Your task to perform on an android device: Go to calendar. Show me events next week Image 0: 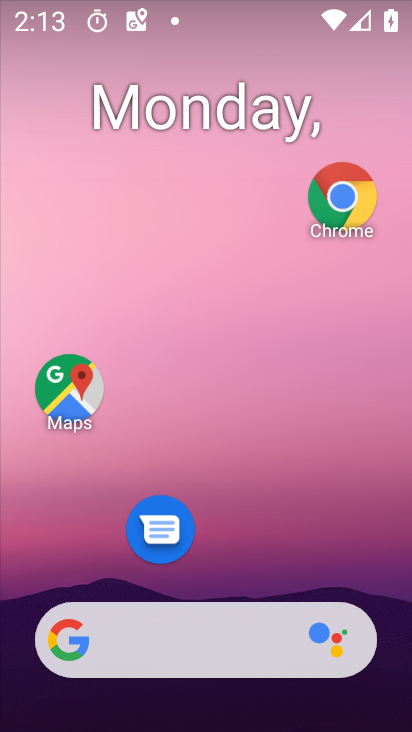
Step 0: drag from (215, 579) to (233, 13)
Your task to perform on an android device: Go to calendar. Show me events next week Image 1: 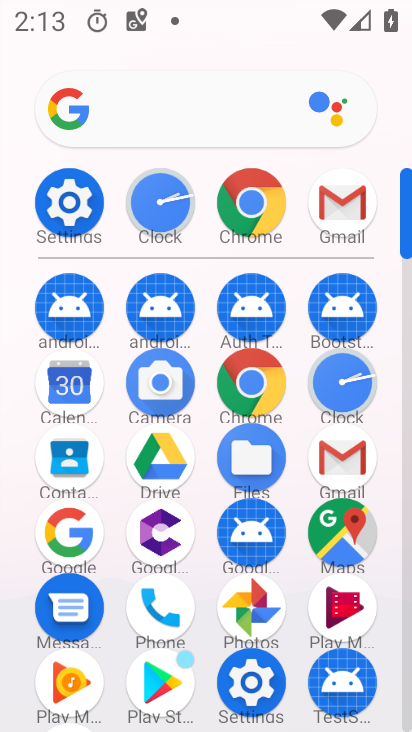
Step 1: click (77, 393)
Your task to perform on an android device: Go to calendar. Show me events next week Image 2: 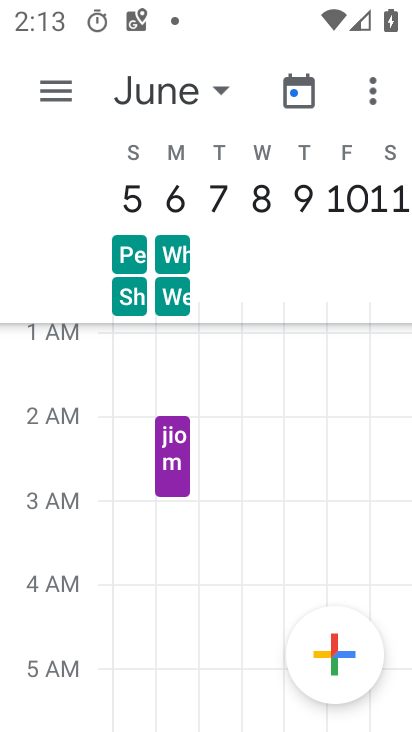
Step 2: task complete